Your task to perform on an android device: visit the assistant section in the google photos Image 0: 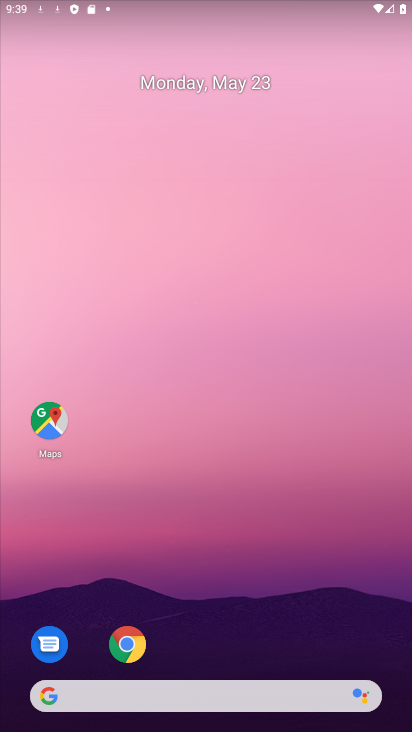
Step 0: drag from (277, 710) to (167, 130)
Your task to perform on an android device: visit the assistant section in the google photos Image 1: 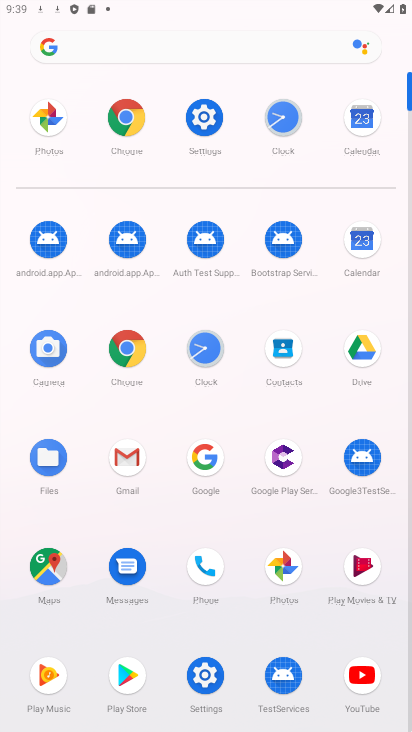
Step 1: click (283, 581)
Your task to perform on an android device: visit the assistant section in the google photos Image 2: 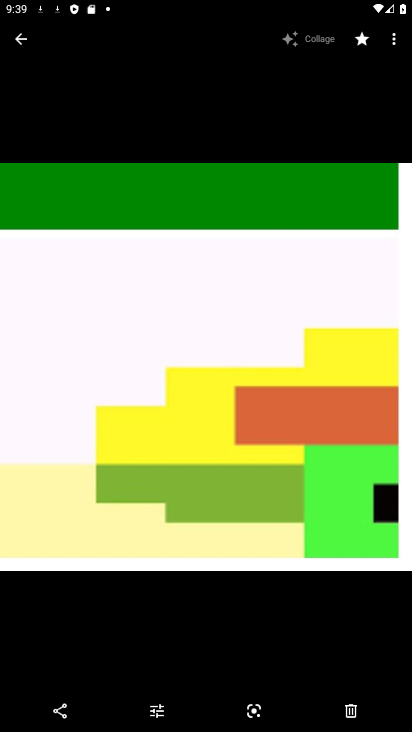
Step 2: click (25, 51)
Your task to perform on an android device: visit the assistant section in the google photos Image 3: 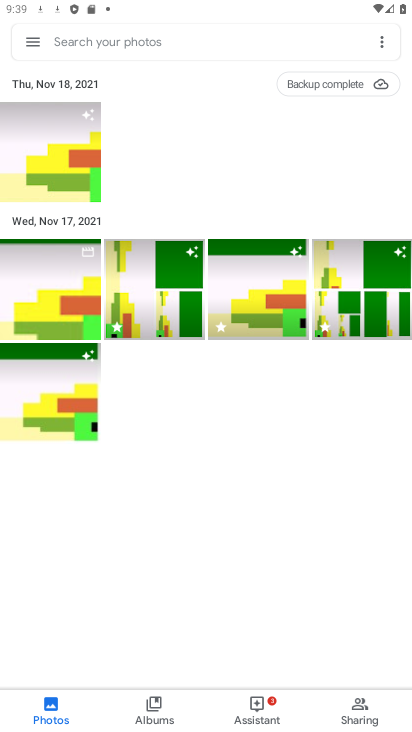
Step 3: click (269, 705)
Your task to perform on an android device: visit the assistant section in the google photos Image 4: 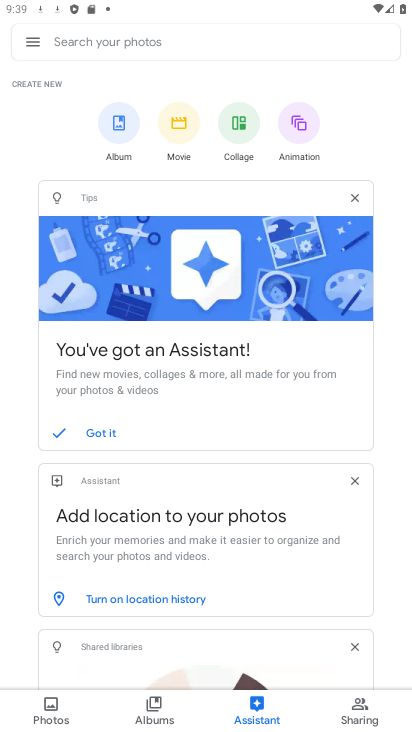
Step 4: task complete